Your task to perform on an android device: Open ESPN.com Image 0: 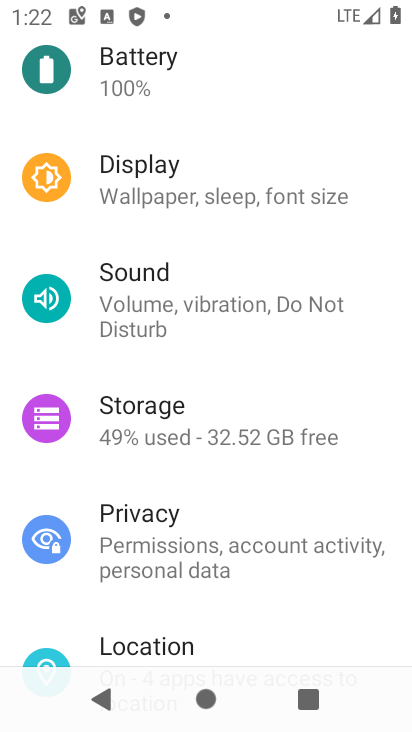
Step 0: press home button
Your task to perform on an android device: Open ESPN.com Image 1: 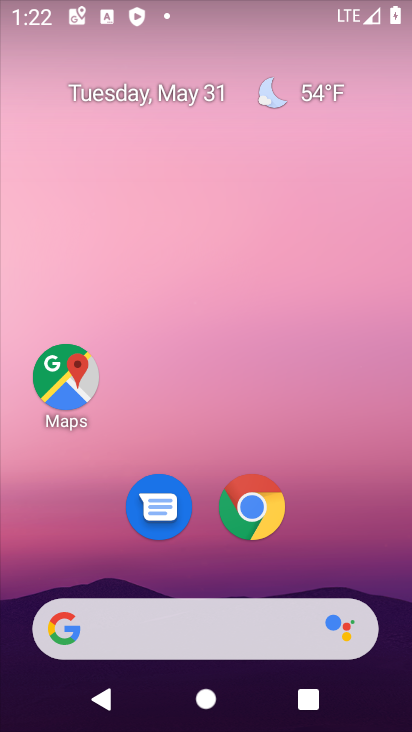
Step 1: drag from (397, 641) to (264, 16)
Your task to perform on an android device: Open ESPN.com Image 2: 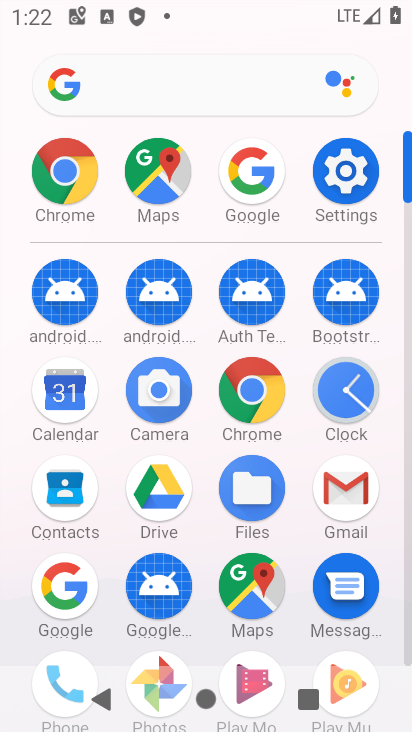
Step 2: click (56, 607)
Your task to perform on an android device: Open ESPN.com Image 3: 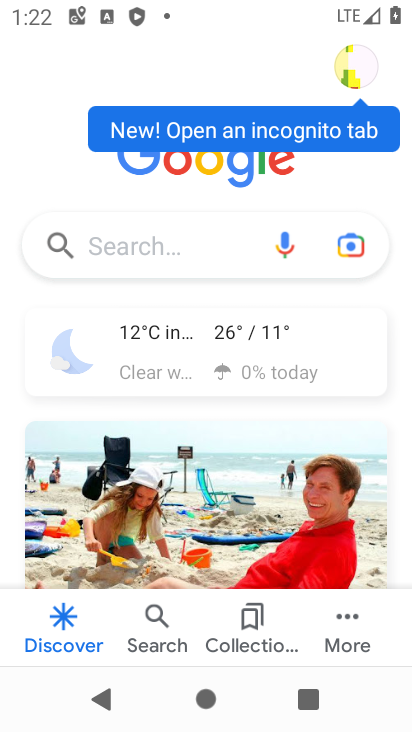
Step 3: click (177, 244)
Your task to perform on an android device: Open ESPN.com Image 4: 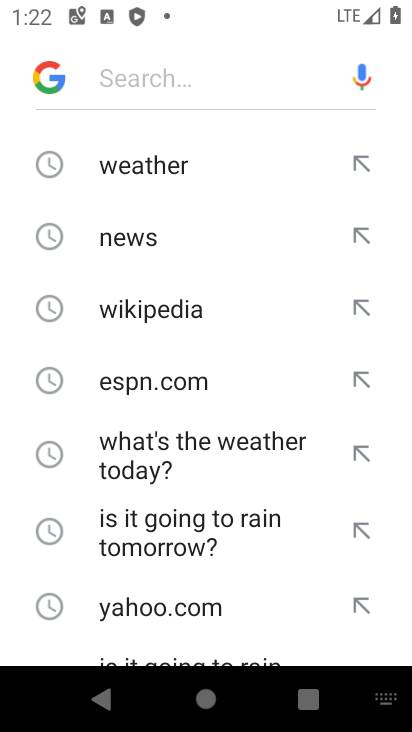
Step 4: drag from (118, 553) to (180, 97)
Your task to perform on an android device: Open ESPN.com Image 5: 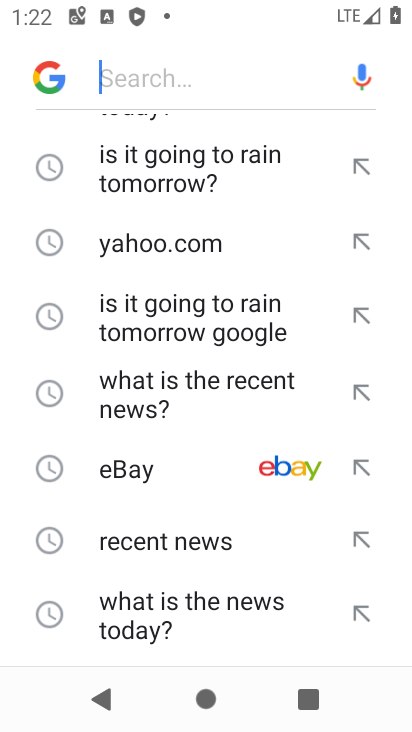
Step 5: drag from (156, 546) to (217, 106)
Your task to perform on an android device: Open ESPN.com Image 6: 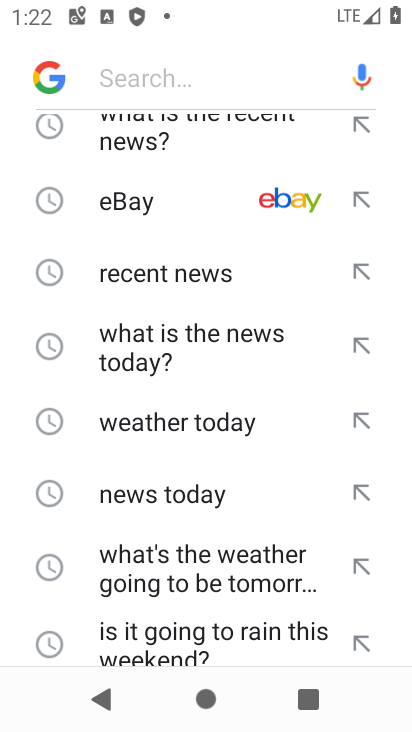
Step 6: drag from (198, 456) to (213, 86)
Your task to perform on an android device: Open ESPN.com Image 7: 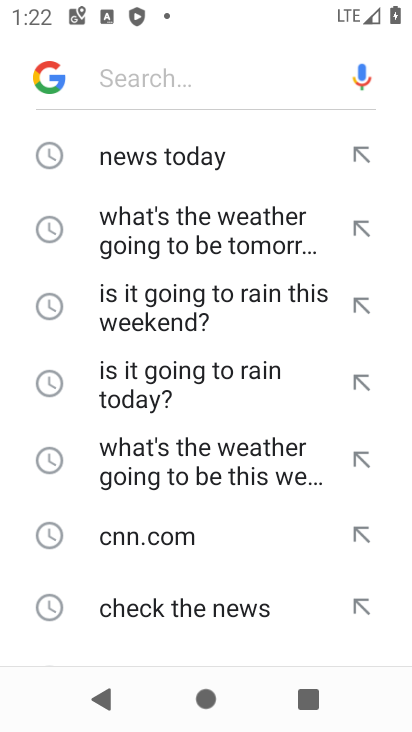
Step 7: drag from (129, 556) to (191, 96)
Your task to perform on an android device: Open ESPN.com Image 8: 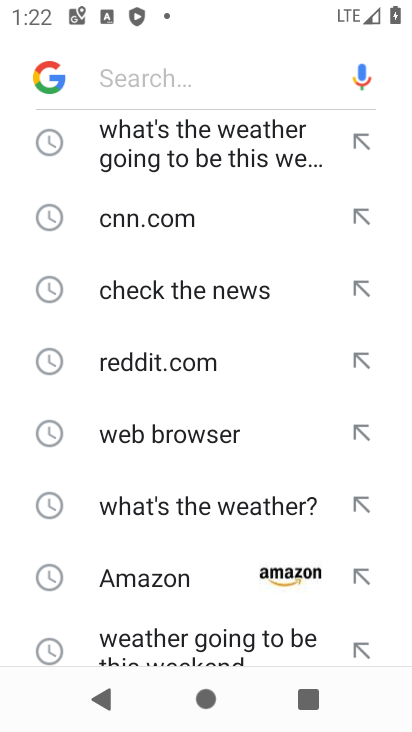
Step 8: drag from (165, 481) to (195, 134)
Your task to perform on an android device: Open ESPN.com Image 9: 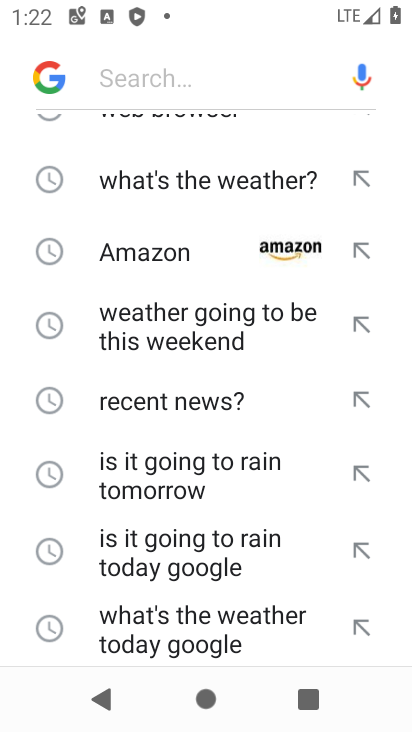
Step 9: drag from (167, 561) to (209, 149)
Your task to perform on an android device: Open ESPN.com Image 10: 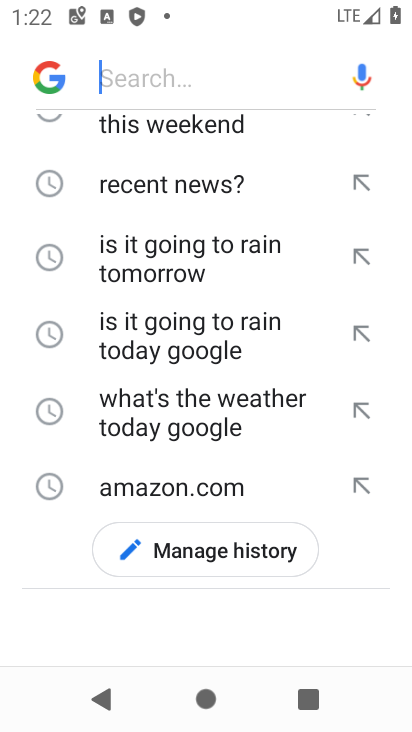
Step 10: drag from (235, 223) to (255, 713)
Your task to perform on an android device: Open ESPN.com Image 11: 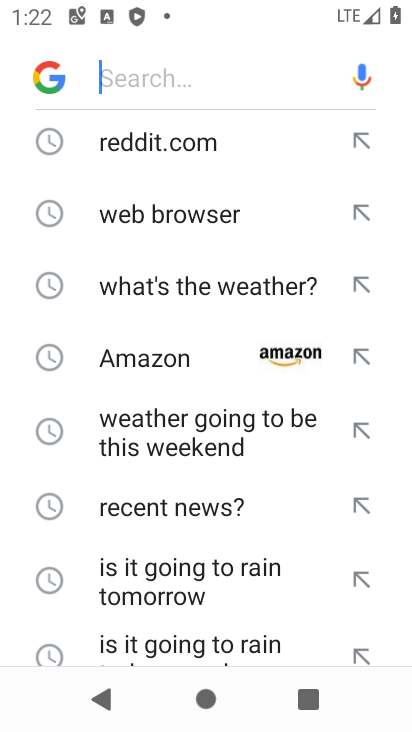
Step 11: drag from (163, 184) to (266, 686)
Your task to perform on an android device: Open ESPN.com Image 12: 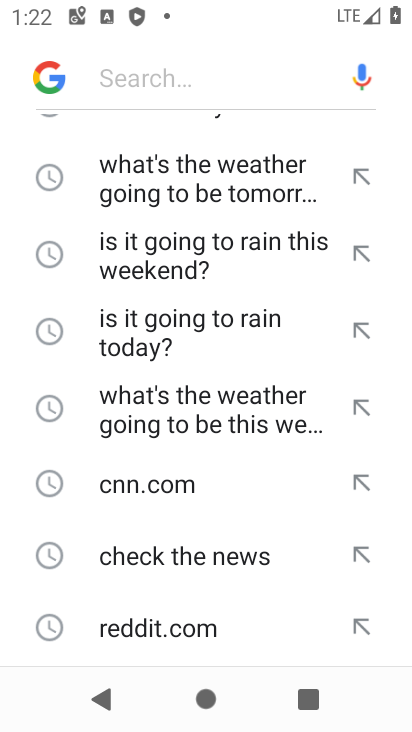
Step 12: drag from (115, 174) to (260, 562)
Your task to perform on an android device: Open ESPN.com Image 13: 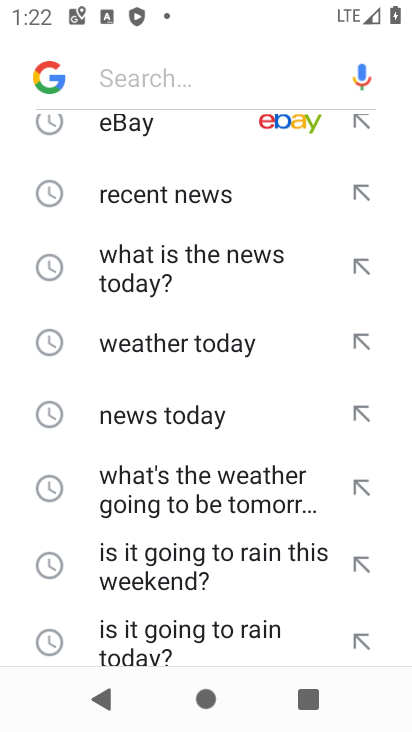
Step 13: drag from (166, 172) to (253, 600)
Your task to perform on an android device: Open ESPN.com Image 14: 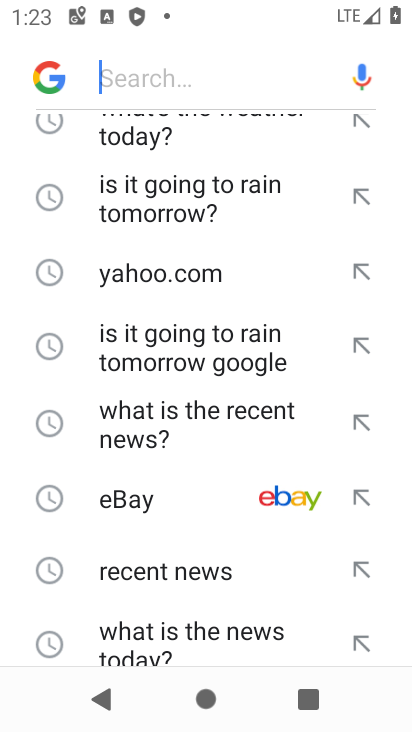
Step 14: drag from (151, 151) to (253, 583)
Your task to perform on an android device: Open ESPN.com Image 15: 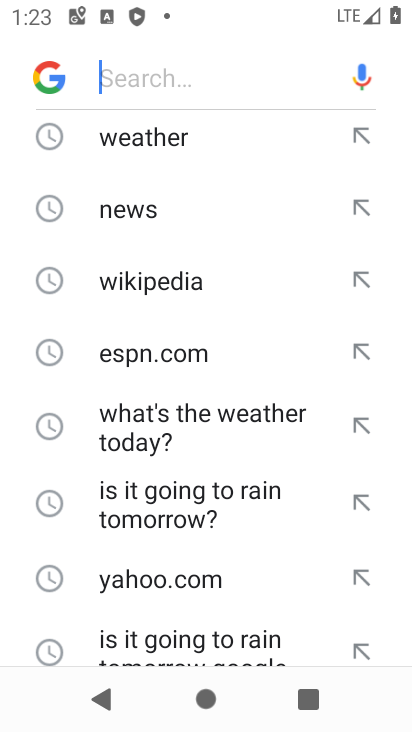
Step 15: click (201, 359)
Your task to perform on an android device: Open ESPN.com Image 16: 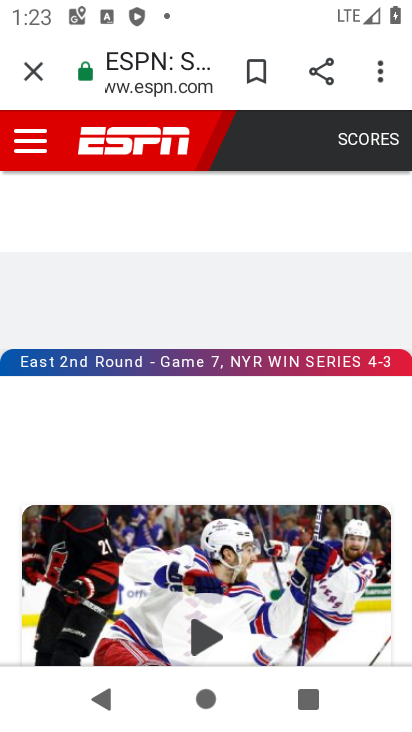
Step 16: task complete